Your task to perform on an android device: Search for Mexican restaurants on Maps Image 0: 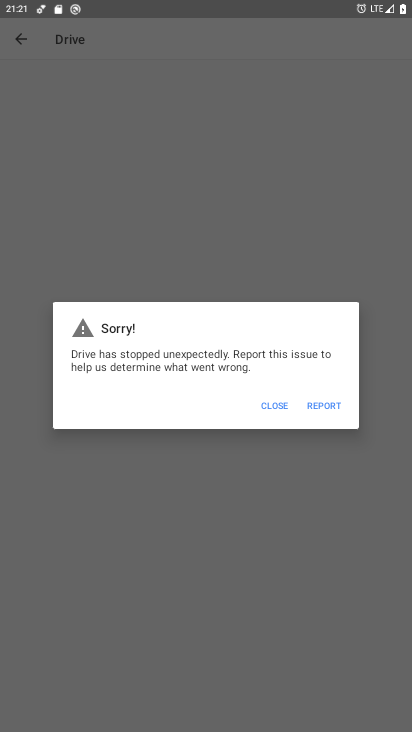
Step 0: press home button
Your task to perform on an android device: Search for Mexican restaurants on Maps Image 1: 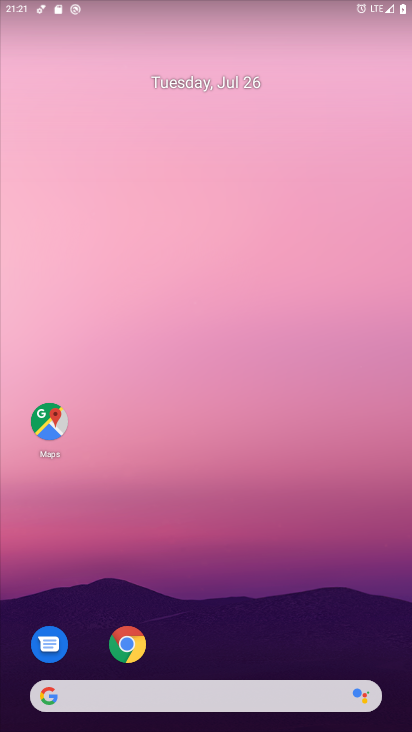
Step 1: click (59, 428)
Your task to perform on an android device: Search for Mexican restaurants on Maps Image 2: 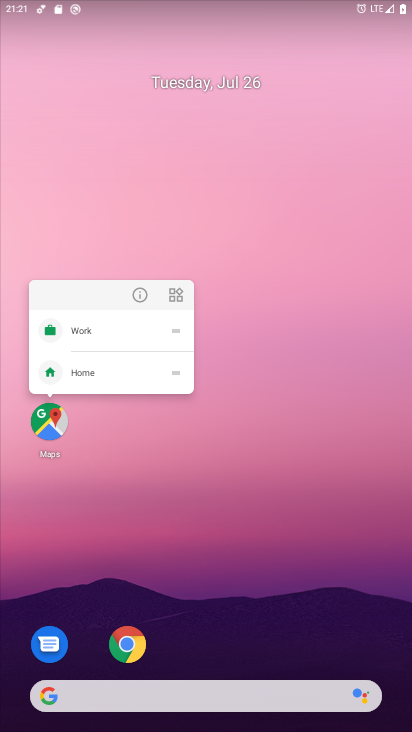
Step 2: click (56, 418)
Your task to perform on an android device: Search for Mexican restaurants on Maps Image 3: 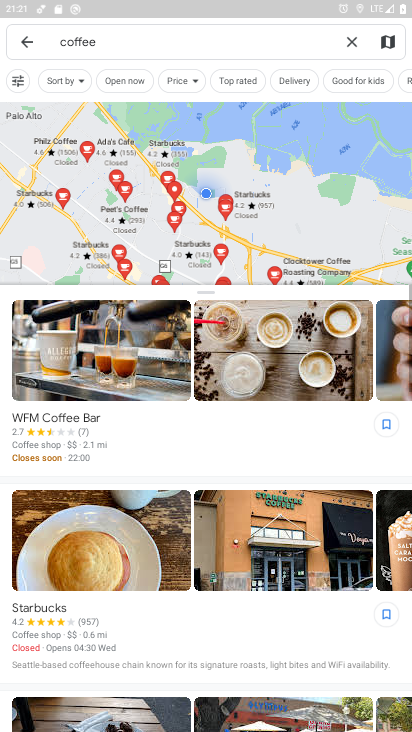
Step 3: click (347, 41)
Your task to perform on an android device: Search for Mexican restaurants on Maps Image 4: 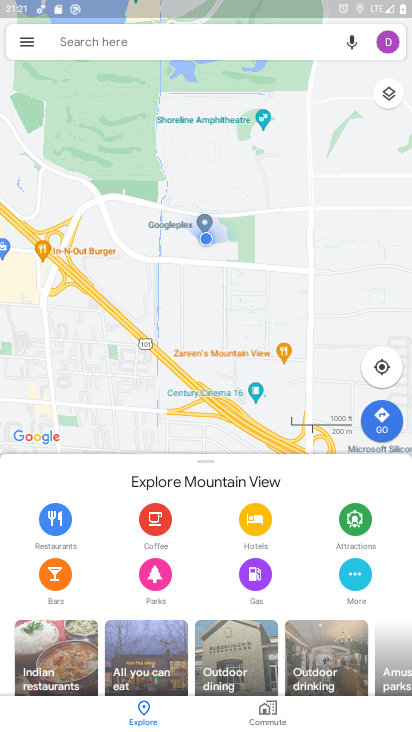
Step 4: click (225, 35)
Your task to perform on an android device: Search for Mexican restaurants on Maps Image 5: 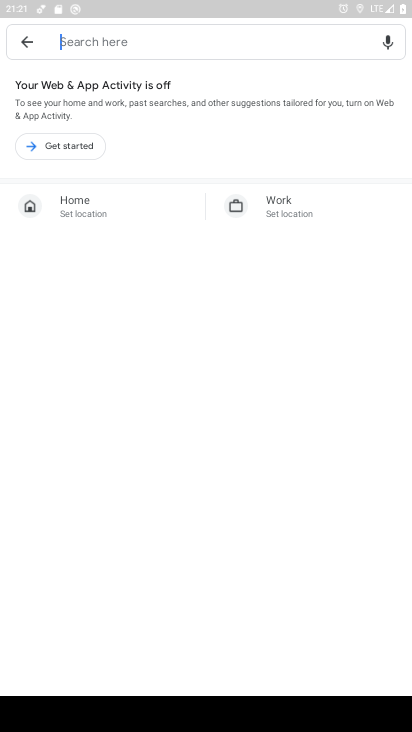
Step 5: click (157, 38)
Your task to perform on an android device: Search for Mexican restaurants on Maps Image 6: 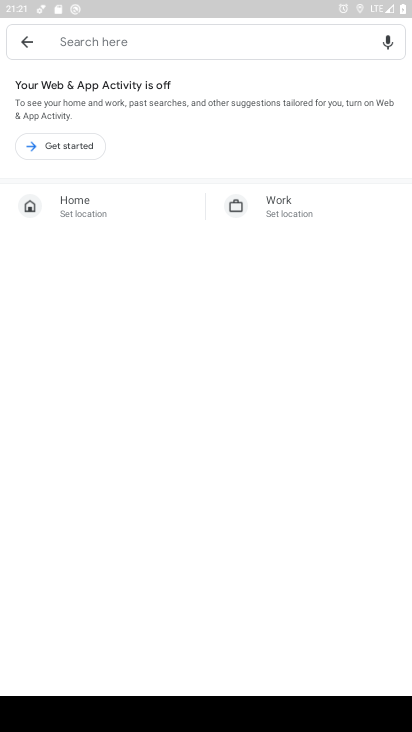
Step 6: type " Mexican restaurants  "
Your task to perform on an android device: Search for Mexican restaurants on Maps Image 7: 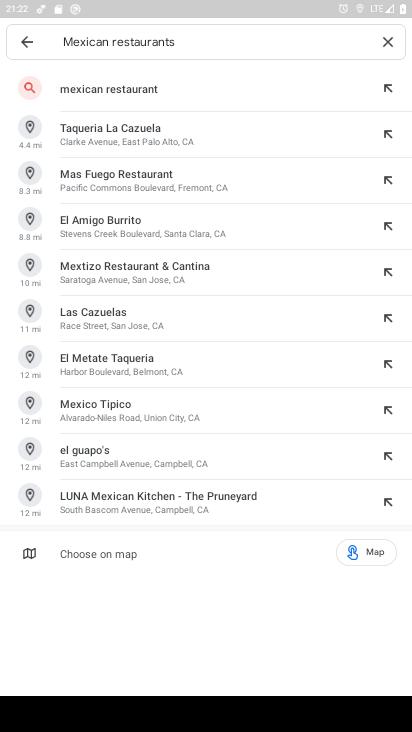
Step 7: click (166, 83)
Your task to perform on an android device: Search for Mexican restaurants on Maps Image 8: 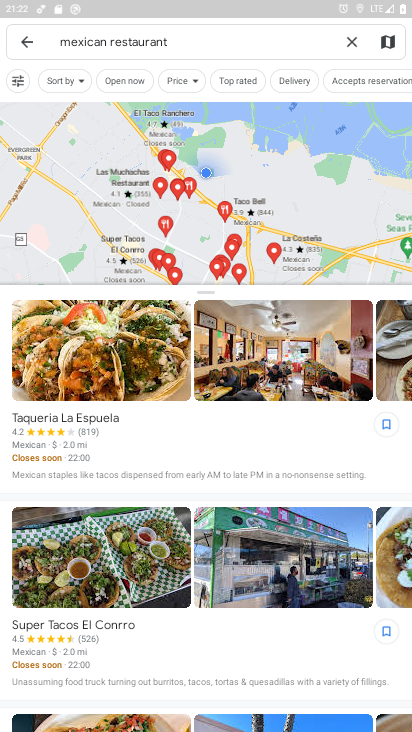
Step 8: task complete